Your task to perform on an android device: star an email in the gmail app Image 0: 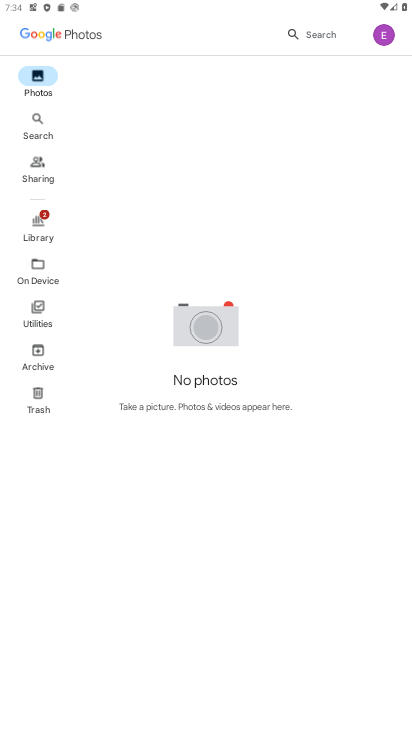
Step 0: press home button
Your task to perform on an android device: star an email in the gmail app Image 1: 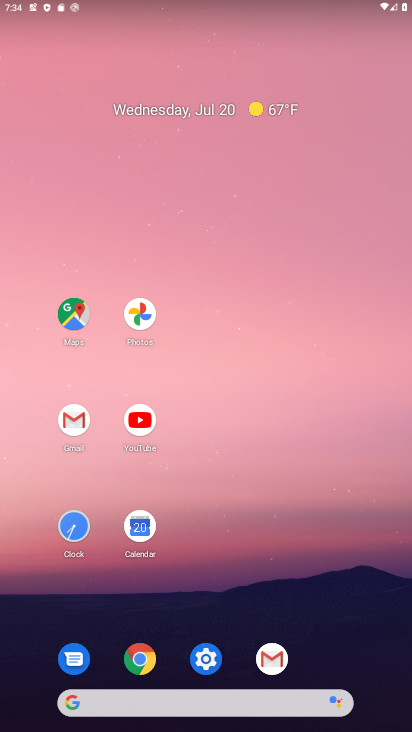
Step 1: click (270, 659)
Your task to perform on an android device: star an email in the gmail app Image 2: 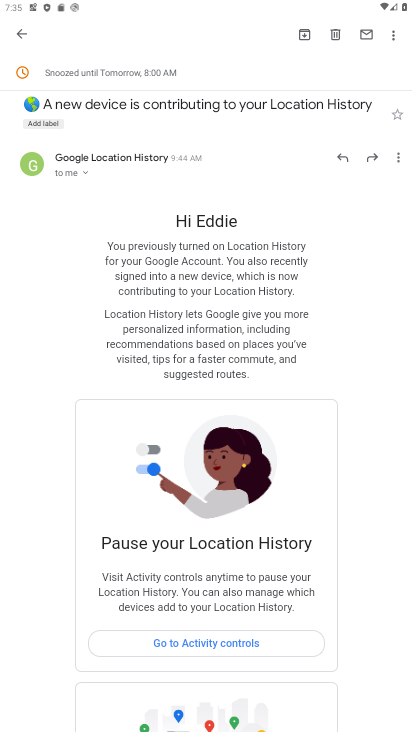
Step 2: click (18, 32)
Your task to perform on an android device: star an email in the gmail app Image 3: 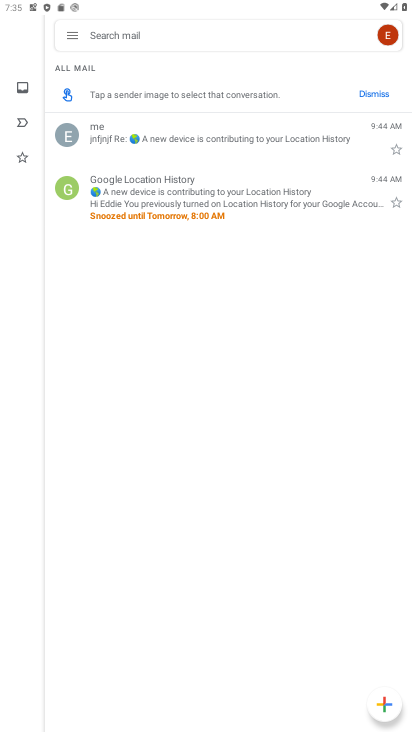
Step 3: click (397, 150)
Your task to perform on an android device: star an email in the gmail app Image 4: 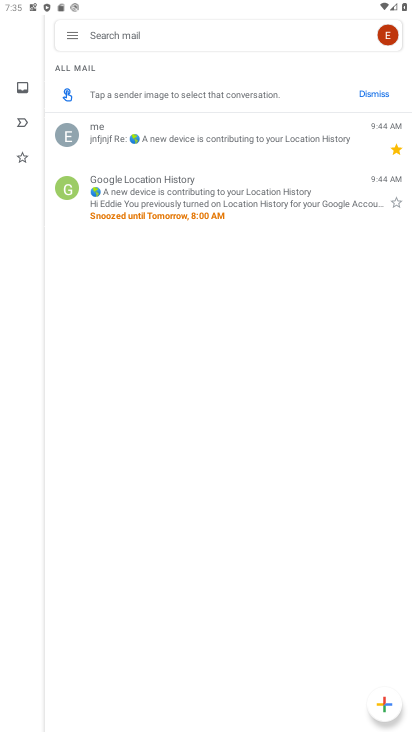
Step 4: task complete